Your task to perform on an android device: Go to settings Image 0: 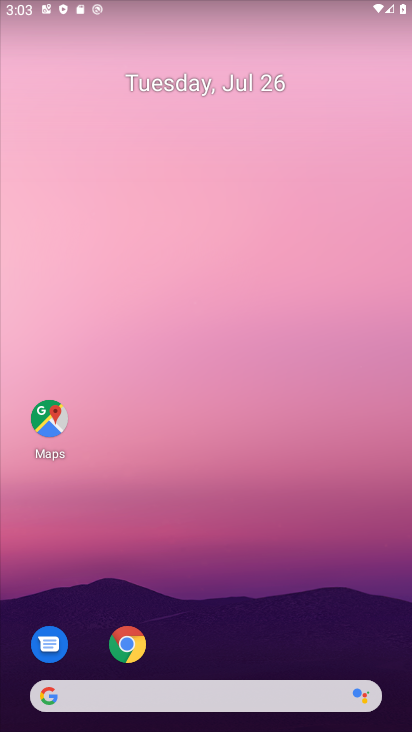
Step 0: press home button
Your task to perform on an android device: Go to settings Image 1: 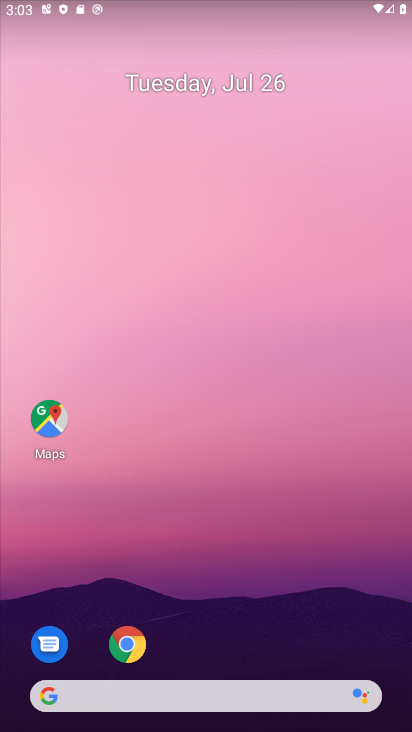
Step 1: drag from (293, 626) to (268, 60)
Your task to perform on an android device: Go to settings Image 2: 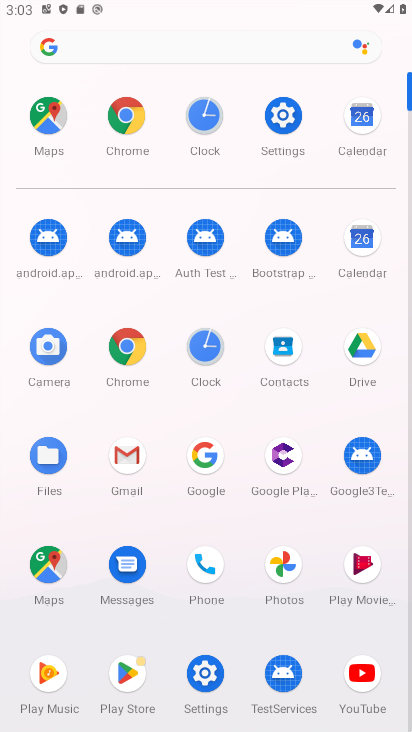
Step 2: click (272, 117)
Your task to perform on an android device: Go to settings Image 3: 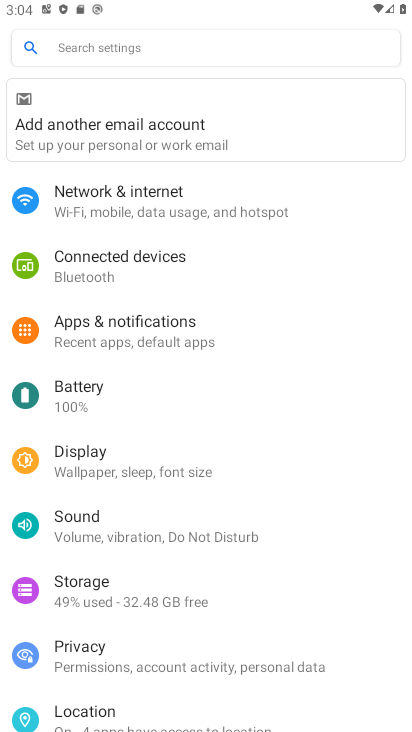
Step 3: task complete